Your task to perform on an android device: toggle translation in the chrome app Image 0: 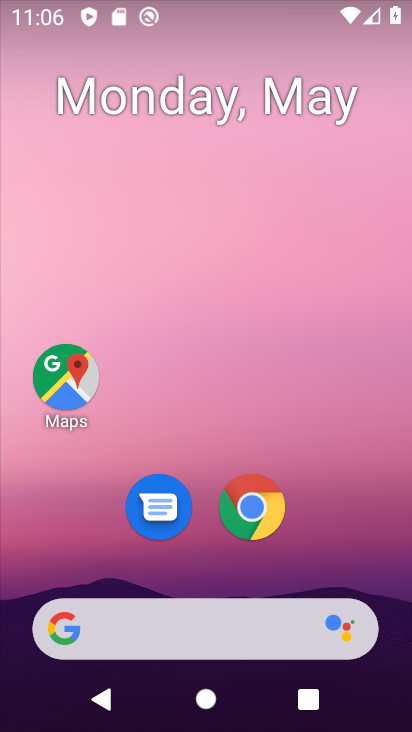
Step 0: click (248, 506)
Your task to perform on an android device: toggle translation in the chrome app Image 1: 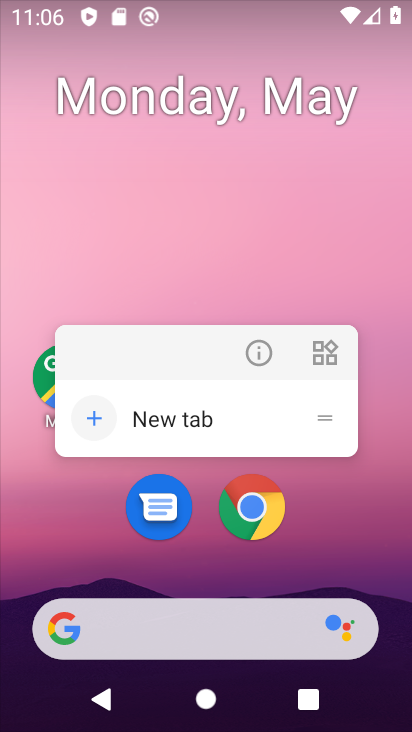
Step 1: click (244, 478)
Your task to perform on an android device: toggle translation in the chrome app Image 2: 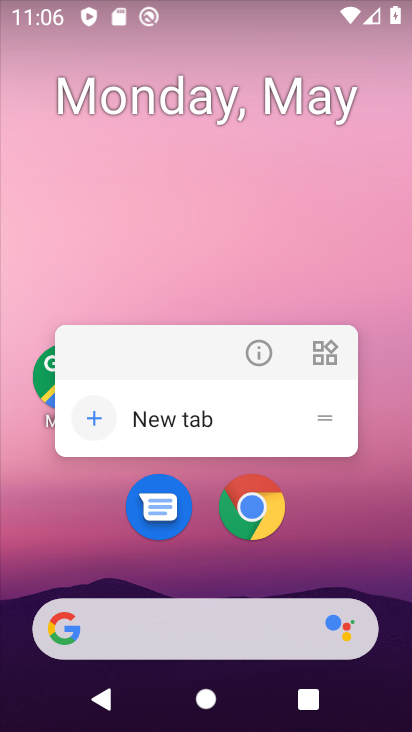
Step 2: click (241, 506)
Your task to perform on an android device: toggle translation in the chrome app Image 3: 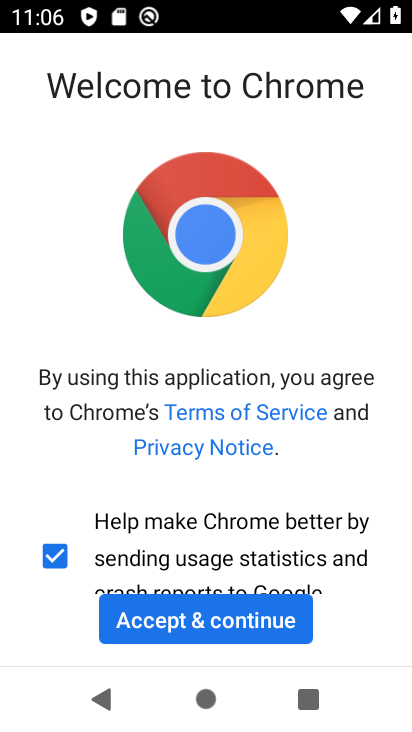
Step 3: click (224, 631)
Your task to perform on an android device: toggle translation in the chrome app Image 4: 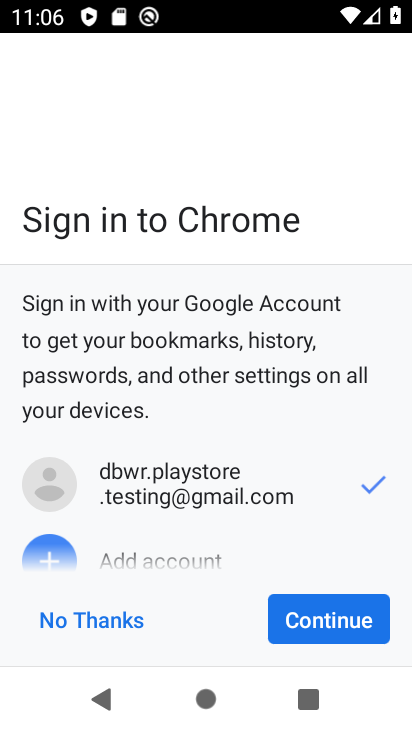
Step 4: click (305, 618)
Your task to perform on an android device: toggle translation in the chrome app Image 5: 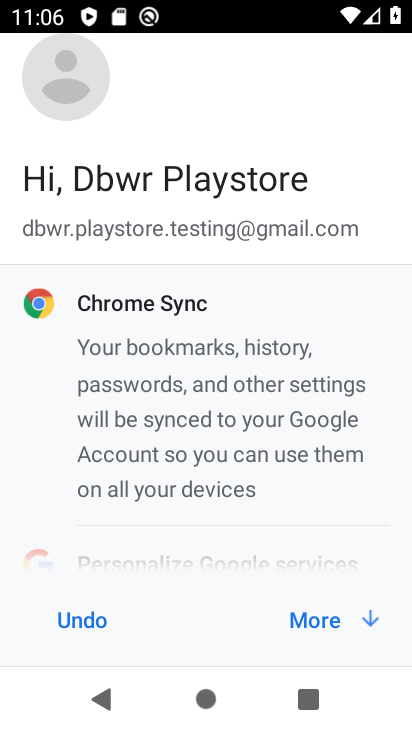
Step 5: click (309, 637)
Your task to perform on an android device: toggle translation in the chrome app Image 6: 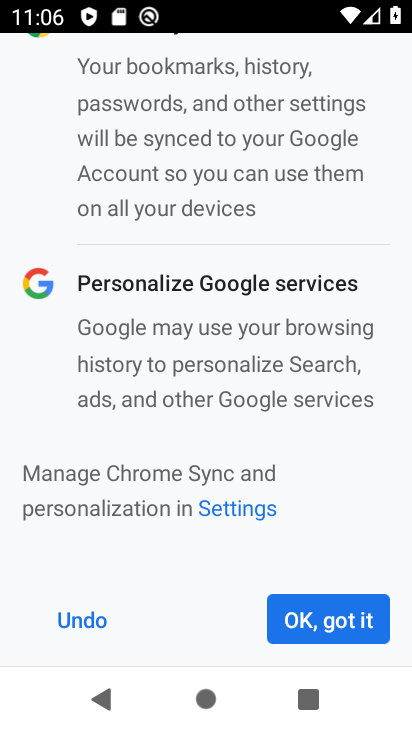
Step 6: click (320, 603)
Your task to perform on an android device: toggle translation in the chrome app Image 7: 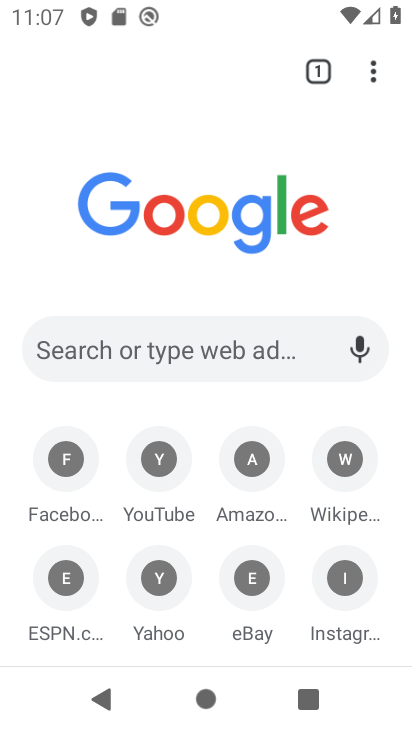
Step 7: click (356, 69)
Your task to perform on an android device: toggle translation in the chrome app Image 8: 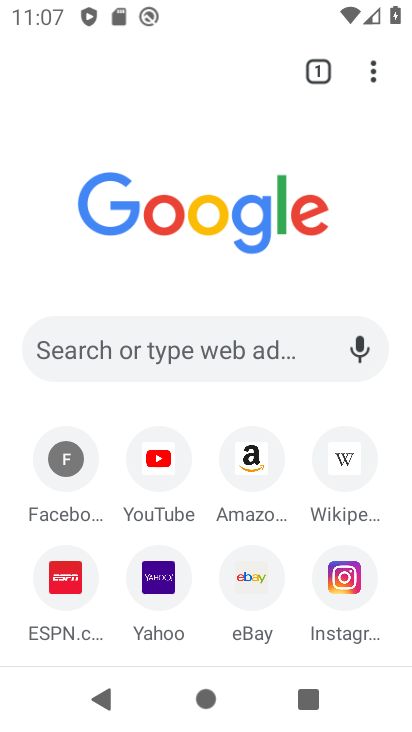
Step 8: click (370, 76)
Your task to perform on an android device: toggle translation in the chrome app Image 9: 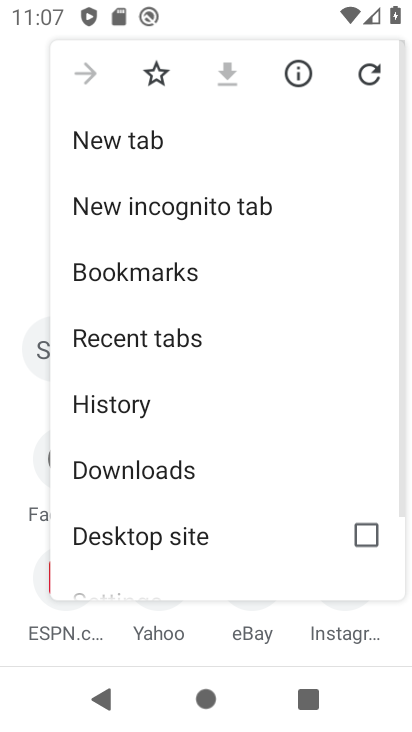
Step 9: drag from (164, 519) to (240, 251)
Your task to perform on an android device: toggle translation in the chrome app Image 10: 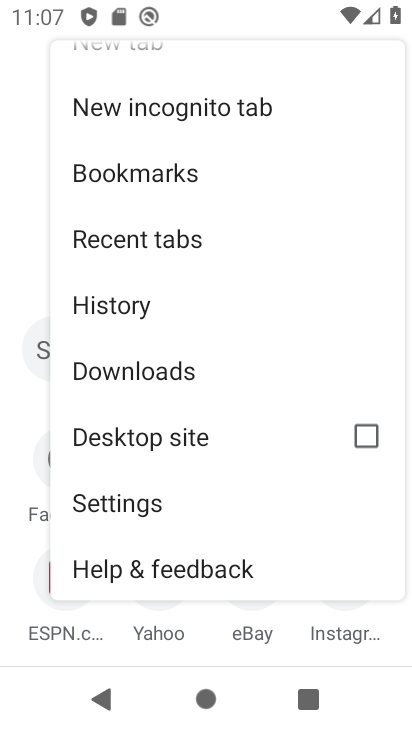
Step 10: click (197, 518)
Your task to perform on an android device: toggle translation in the chrome app Image 11: 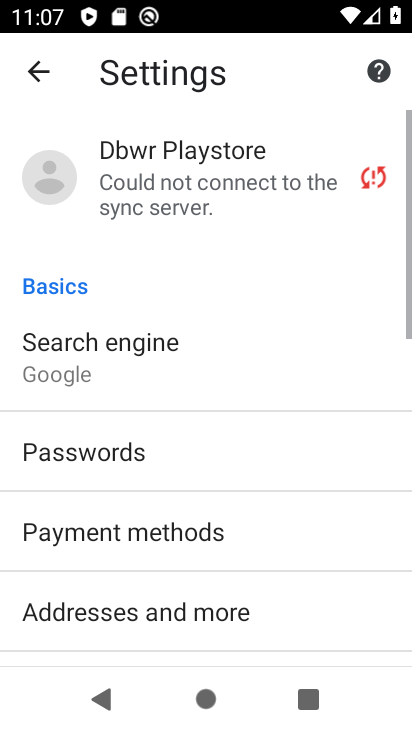
Step 11: drag from (232, 571) to (266, 150)
Your task to perform on an android device: toggle translation in the chrome app Image 12: 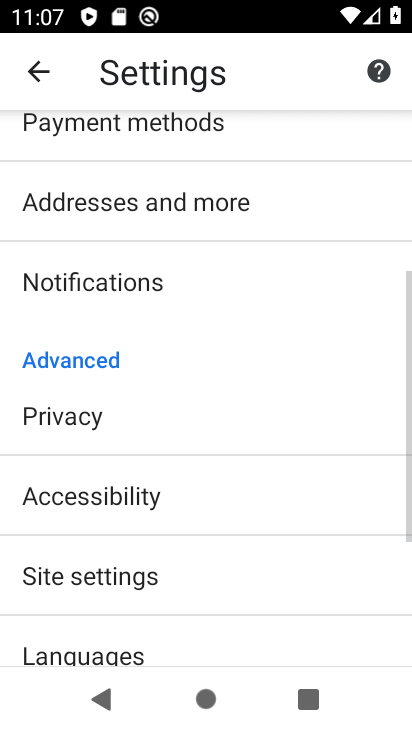
Step 12: drag from (188, 583) to (227, 302)
Your task to perform on an android device: toggle translation in the chrome app Image 13: 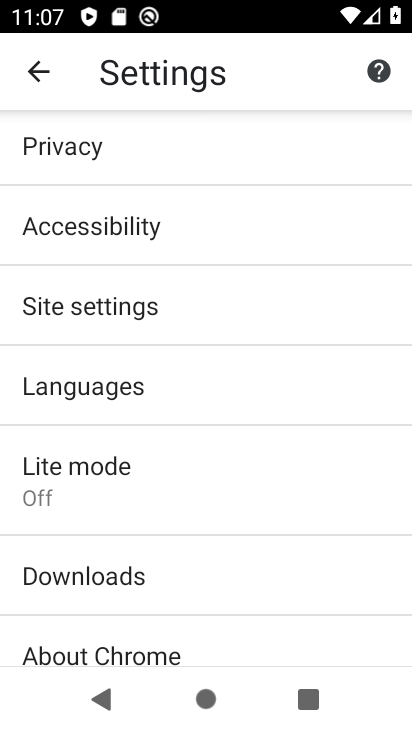
Step 13: click (143, 396)
Your task to perform on an android device: toggle translation in the chrome app Image 14: 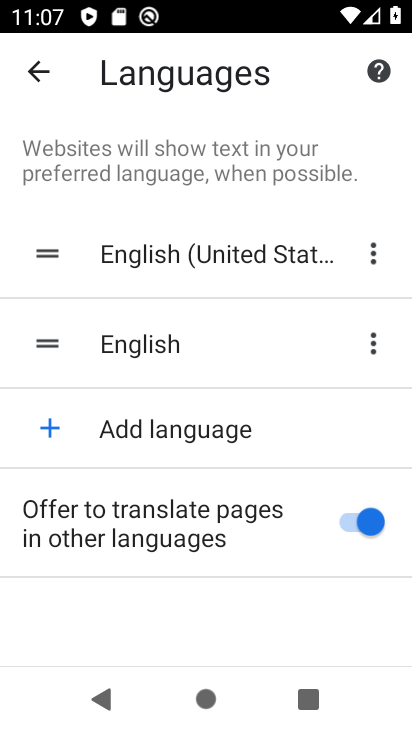
Step 14: click (340, 511)
Your task to perform on an android device: toggle translation in the chrome app Image 15: 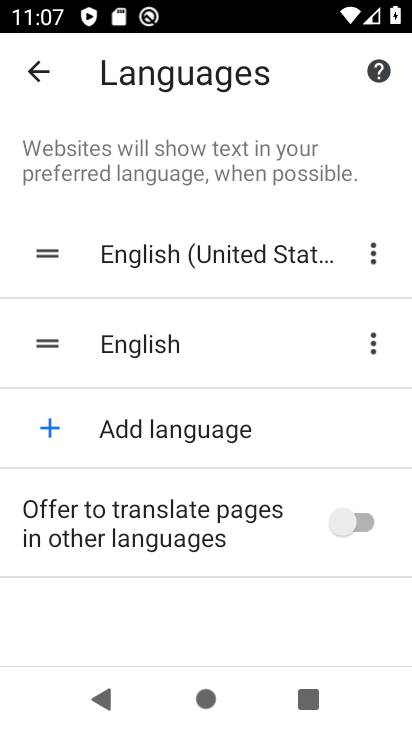
Step 15: task complete